Your task to perform on an android device: What's the weather today? Image 0: 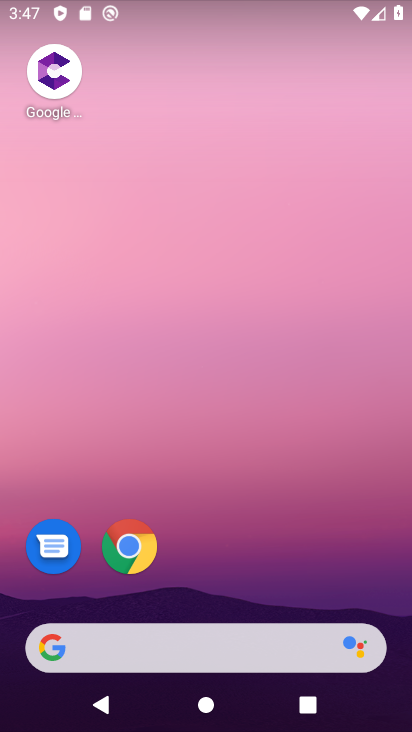
Step 0: click (136, 641)
Your task to perform on an android device: What's the weather today? Image 1: 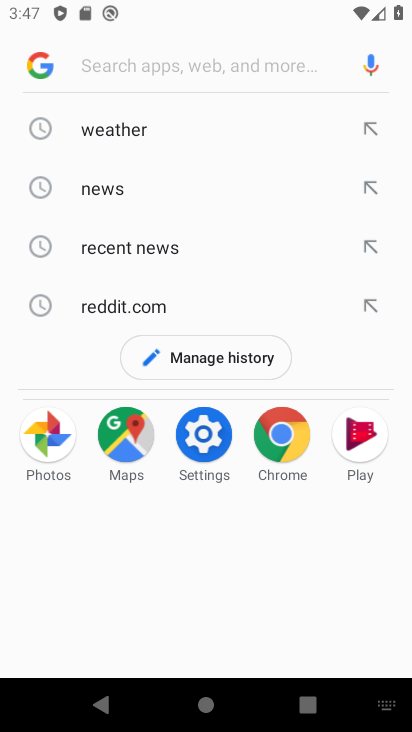
Step 1: type "what's the weather today"
Your task to perform on an android device: What's the weather today? Image 2: 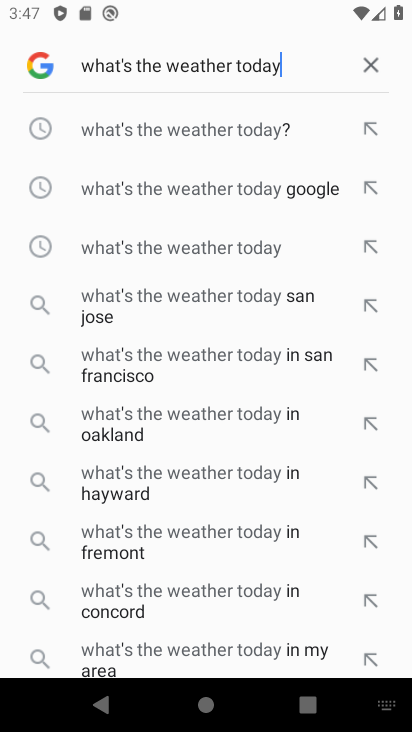
Step 2: click (206, 133)
Your task to perform on an android device: What's the weather today? Image 3: 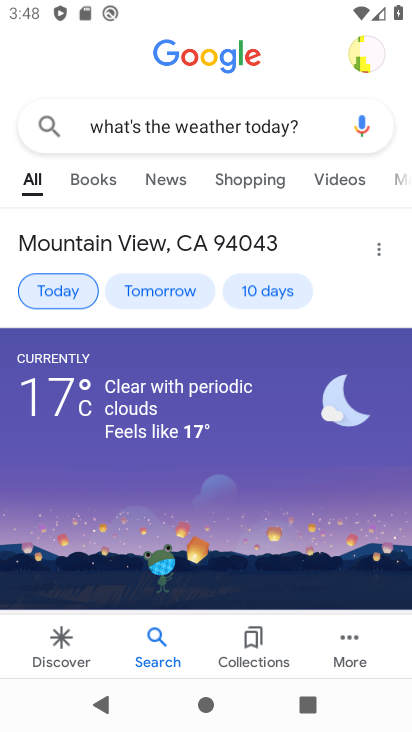
Step 3: task complete